Your task to perform on an android device: Go to wifi settings Image 0: 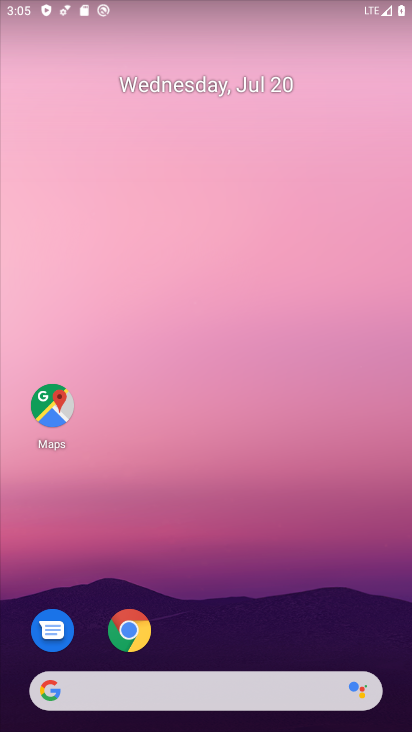
Step 0: drag from (228, 630) to (237, 1)
Your task to perform on an android device: Go to wifi settings Image 1: 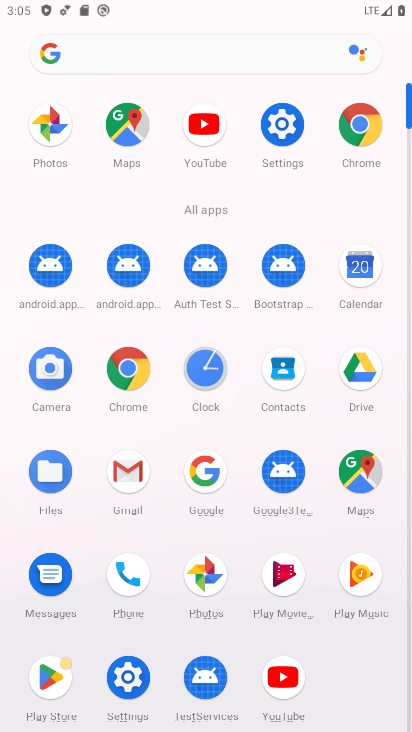
Step 1: click (304, 145)
Your task to perform on an android device: Go to wifi settings Image 2: 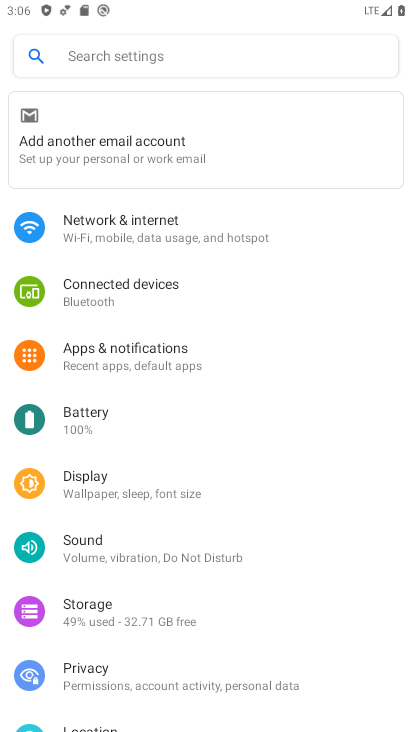
Step 2: click (146, 240)
Your task to perform on an android device: Go to wifi settings Image 3: 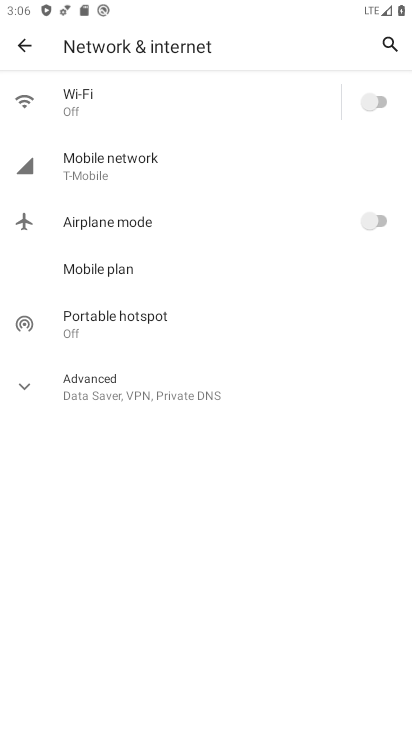
Step 3: click (101, 97)
Your task to perform on an android device: Go to wifi settings Image 4: 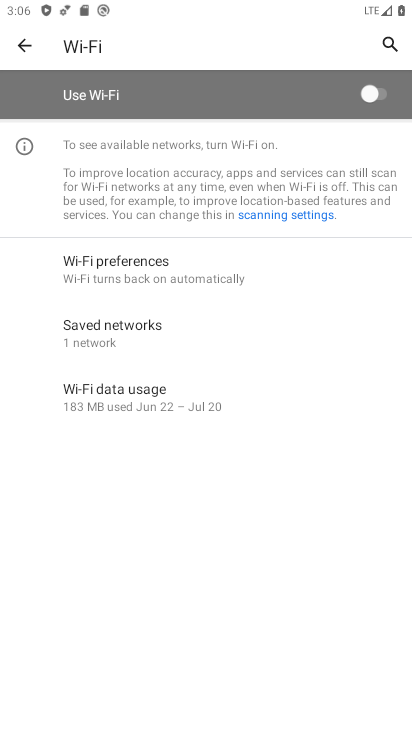
Step 4: click (366, 90)
Your task to perform on an android device: Go to wifi settings Image 5: 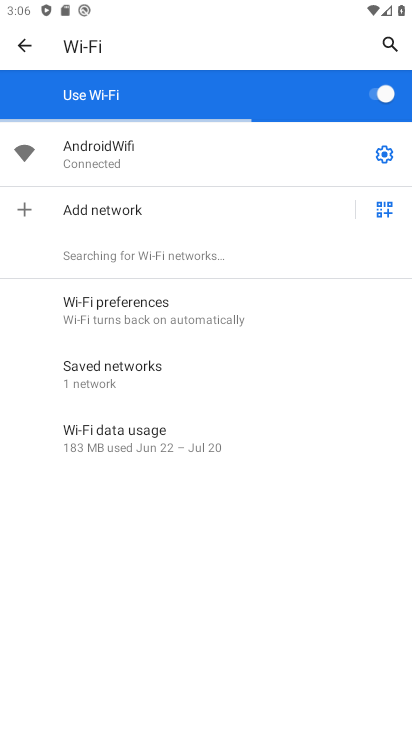
Step 5: task complete